Your task to perform on an android device: What's on my calendar tomorrow? Image 0: 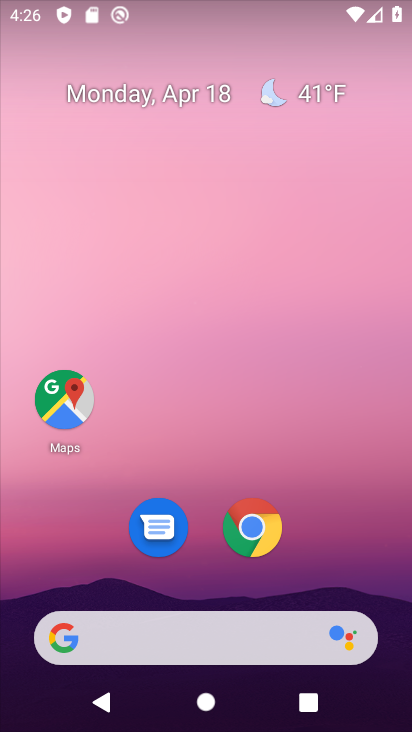
Step 0: drag from (351, 512) to (271, 102)
Your task to perform on an android device: What's on my calendar tomorrow? Image 1: 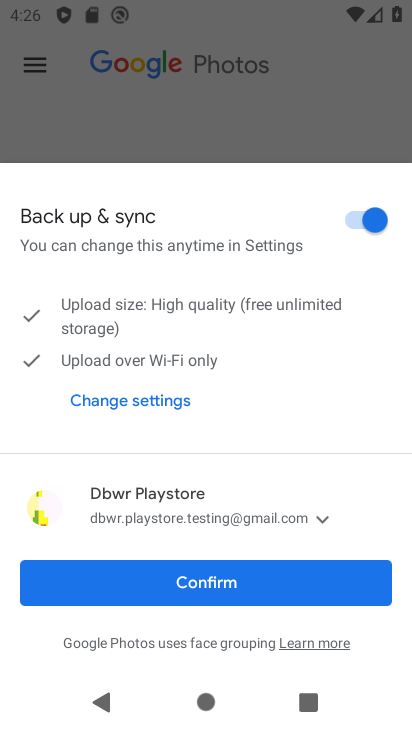
Step 1: press home button
Your task to perform on an android device: What's on my calendar tomorrow? Image 2: 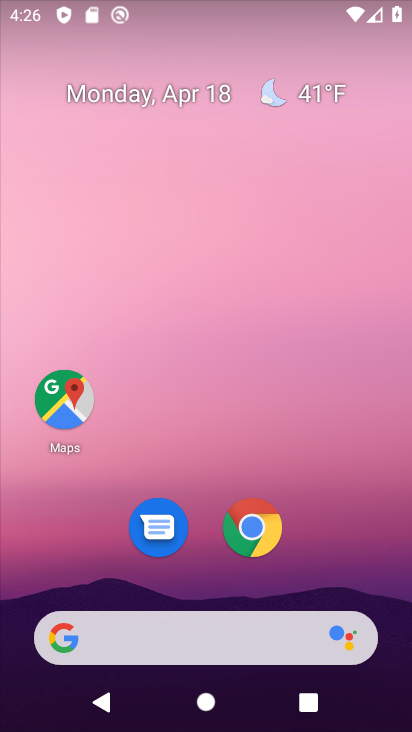
Step 2: drag from (362, 495) to (299, 145)
Your task to perform on an android device: What's on my calendar tomorrow? Image 3: 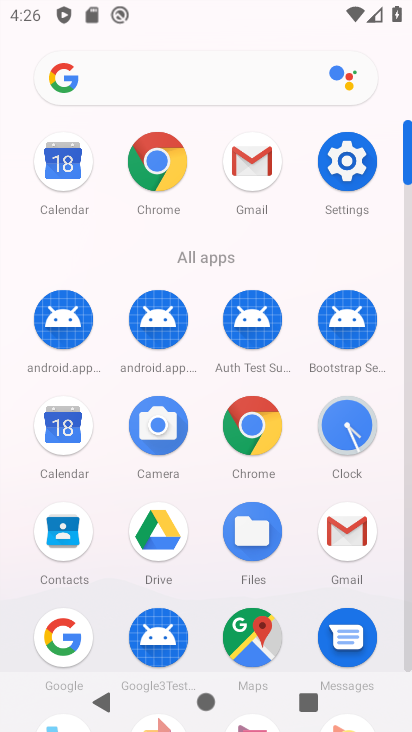
Step 3: click (406, 147)
Your task to perform on an android device: What's on my calendar tomorrow? Image 4: 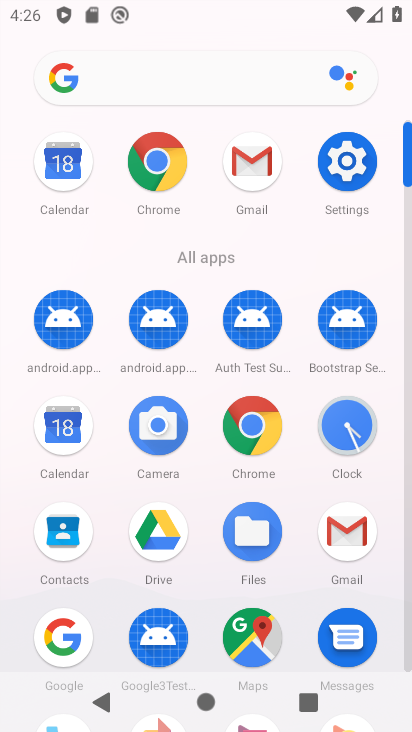
Step 4: click (69, 441)
Your task to perform on an android device: What's on my calendar tomorrow? Image 5: 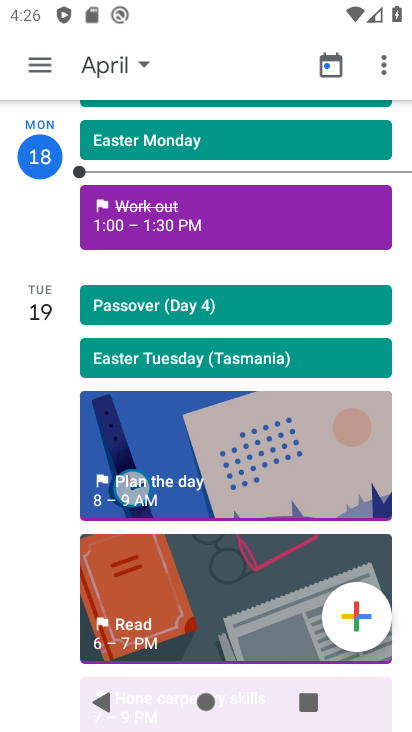
Step 5: task complete